Your task to perform on an android device: clear history in the chrome app Image 0: 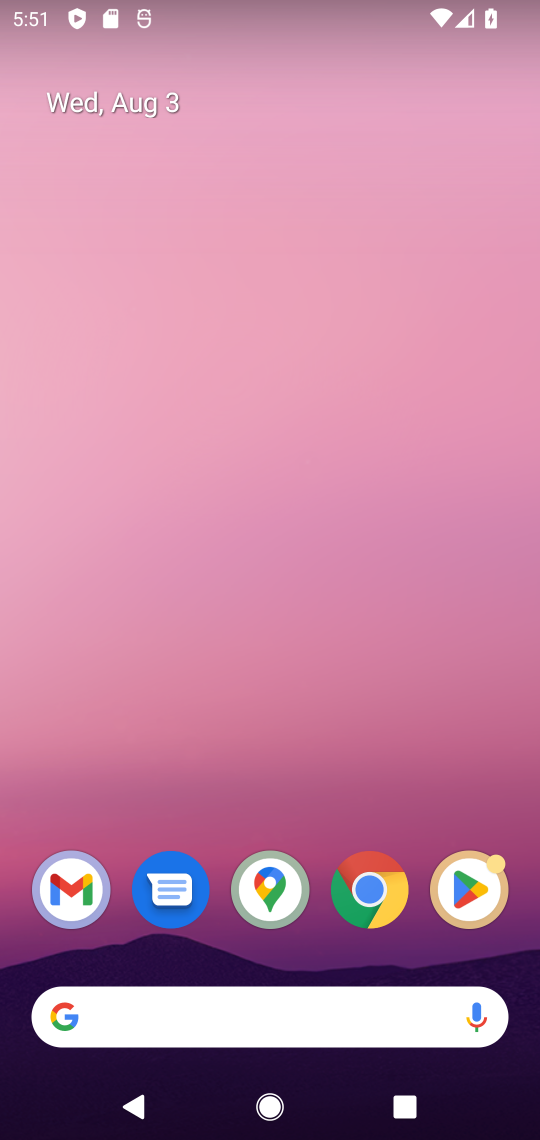
Step 0: click (371, 893)
Your task to perform on an android device: clear history in the chrome app Image 1: 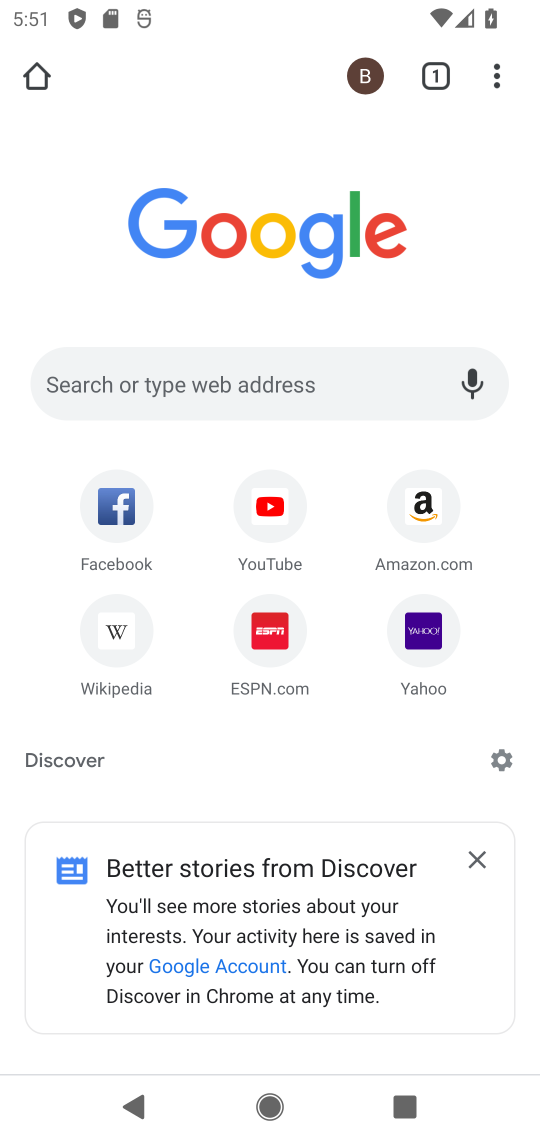
Step 1: click (495, 68)
Your task to perform on an android device: clear history in the chrome app Image 2: 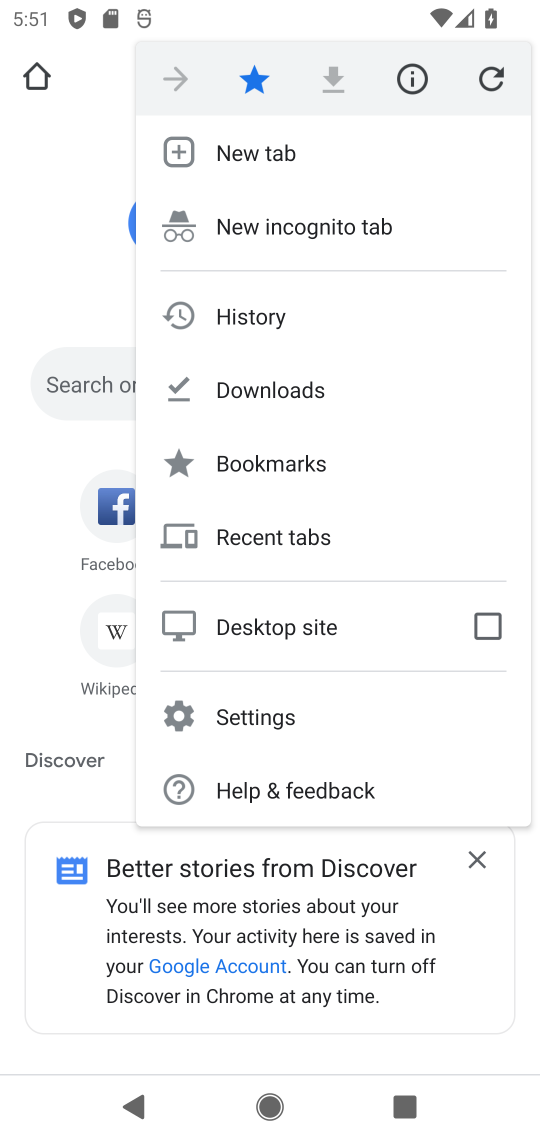
Step 2: click (267, 313)
Your task to perform on an android device: clear history in the chrome app Image 3: 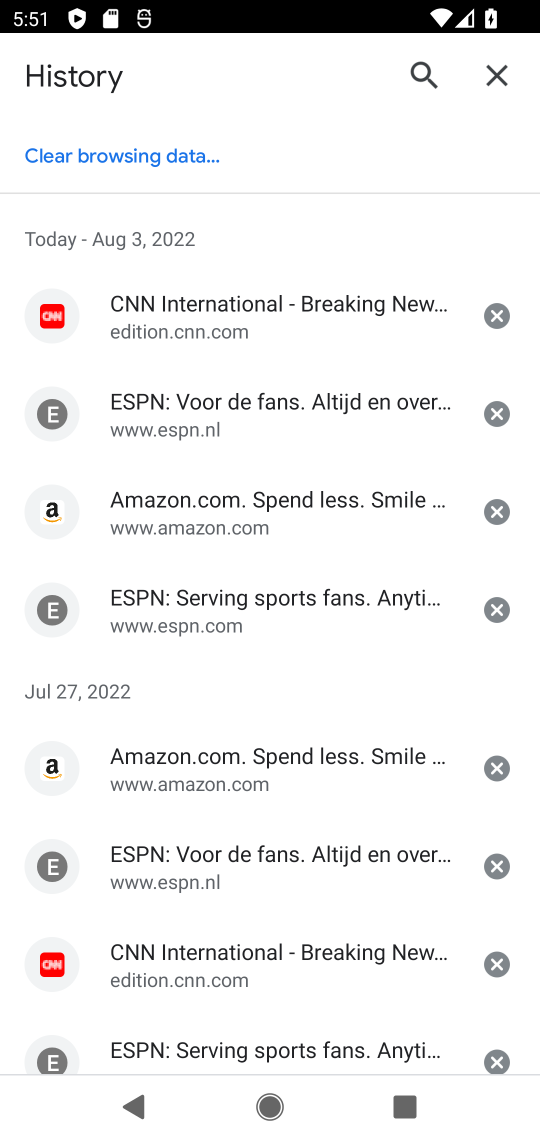
Step 3: click (176, 153)
Your task to perform on an android device: clear history in the chrome app Image 4: 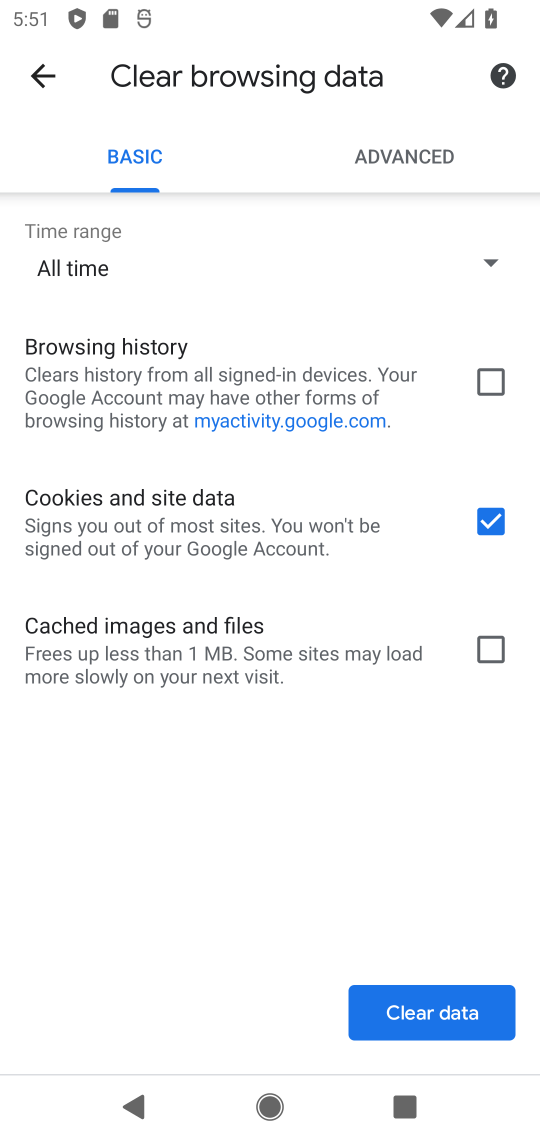
Step 4: click (486, 383)
Your task to perform on an android device: clear history in the chrome app Image 5: 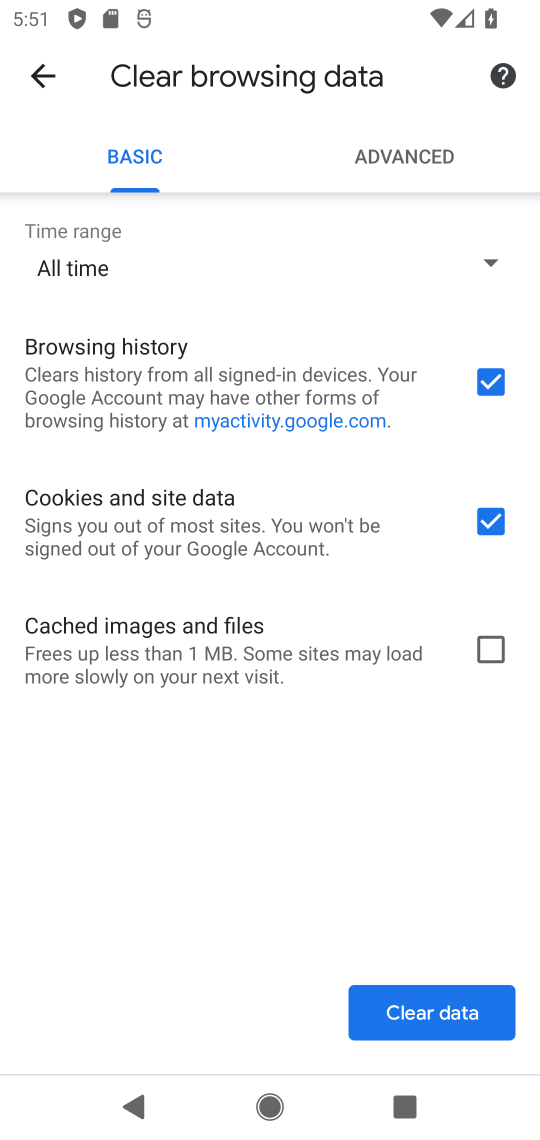
Step 5: click (494, 650)
Your task to perform on an android device: clear history in the chrome app Image 6: 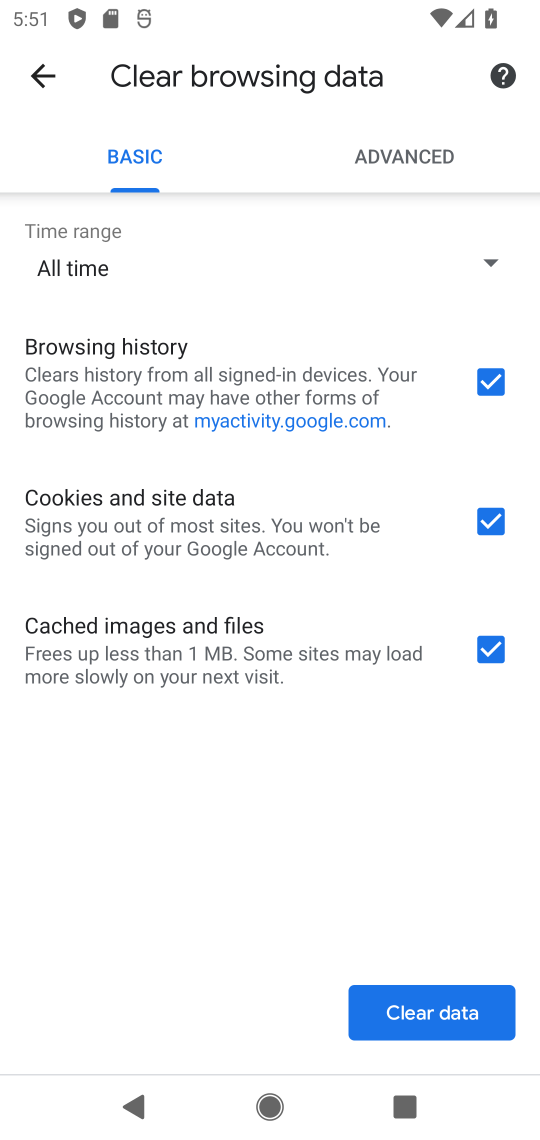
Step 6: click (420, 1015)
Your task to perform on an android device: clear history in the chrome app Image 7: 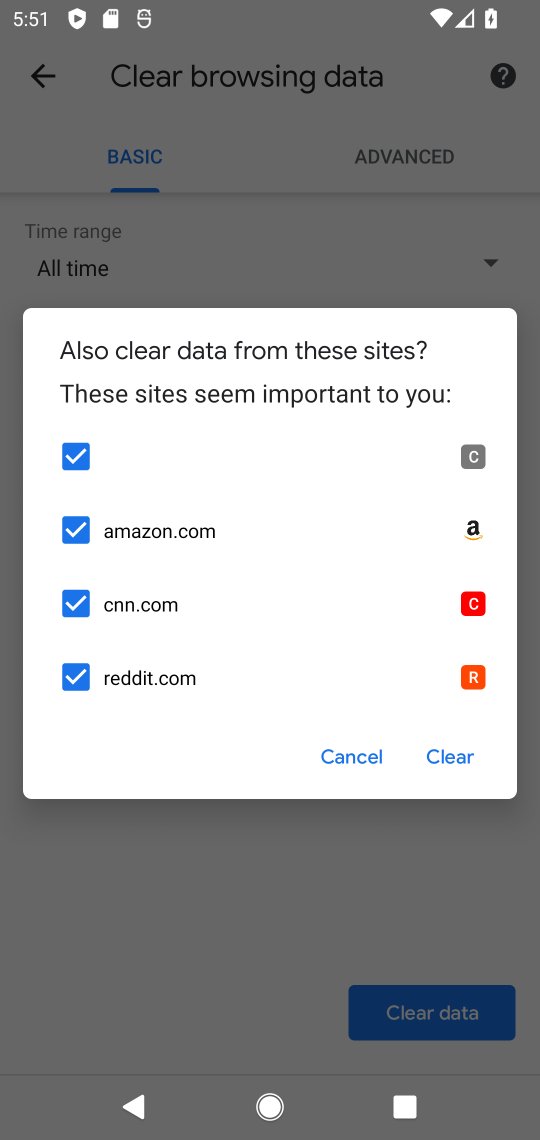
Step 7: click (458, 763)
Your task to perform on an android device: clear history in the chrome app Image 8: 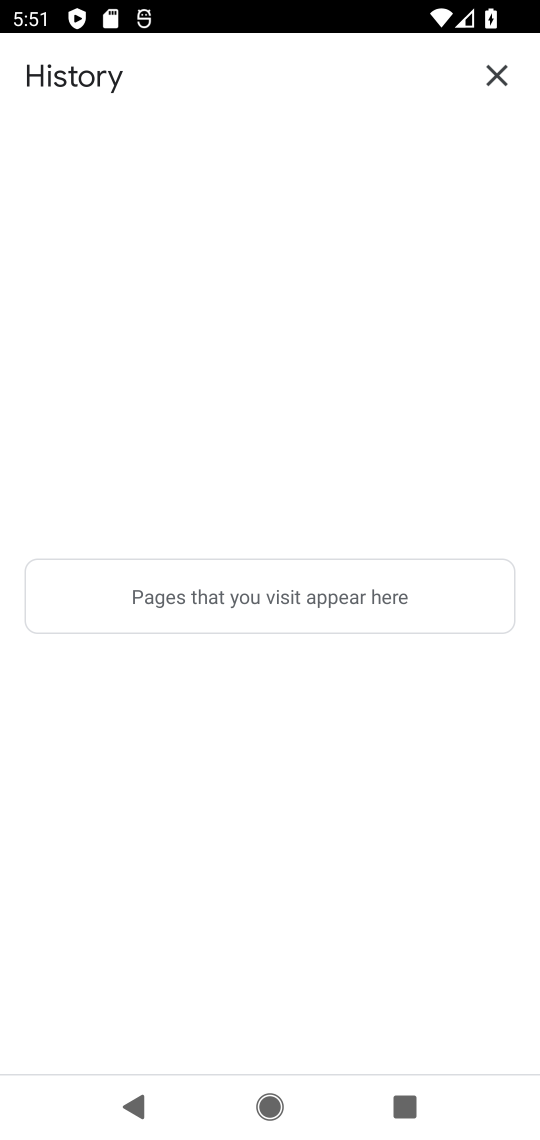
Step 8: task complete